Your task to perform on an android device: turn notification dots off Image 0: 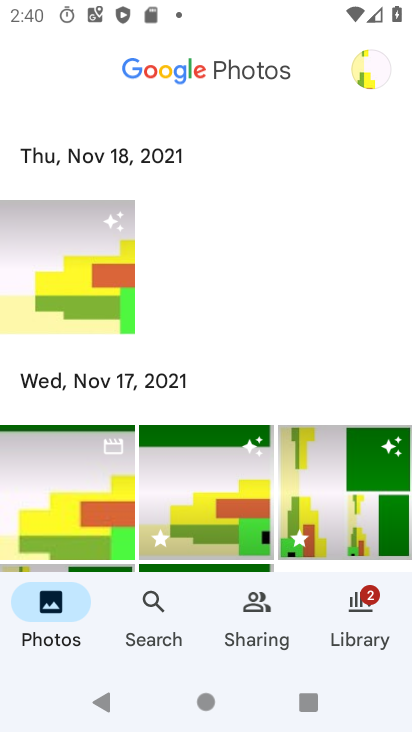
Step 0: press home button
Your task to perform on an android device: turn notification dots off Image 1: 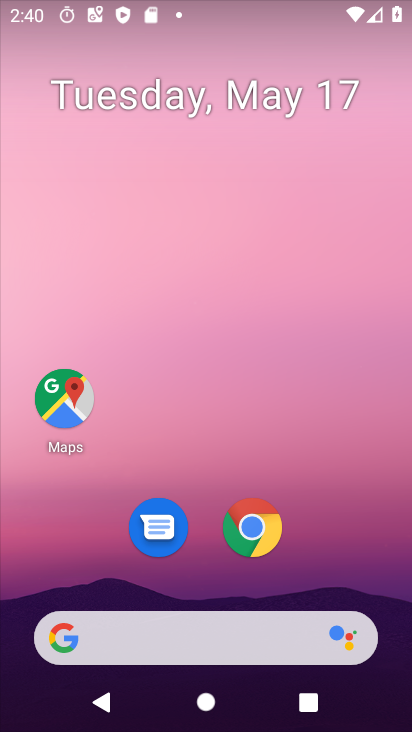
Step 1: drag from (256, 664) to (248, 171)
Your task to perform on an android device: turn notification dots off Image 2: 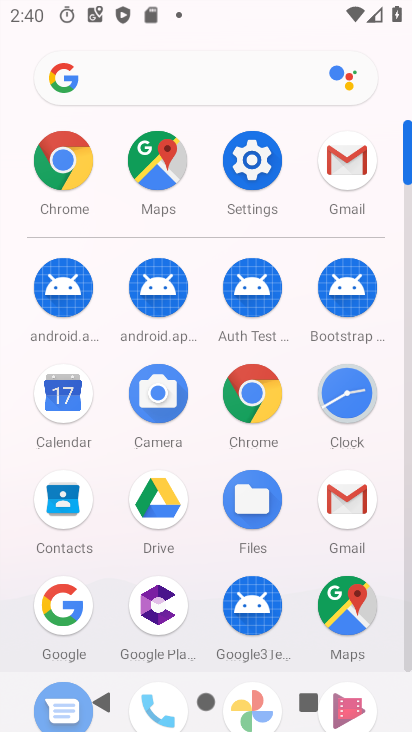
Step 2: click (259, 170)
Your task to perform on an android device: turn notification dots off Image 3: 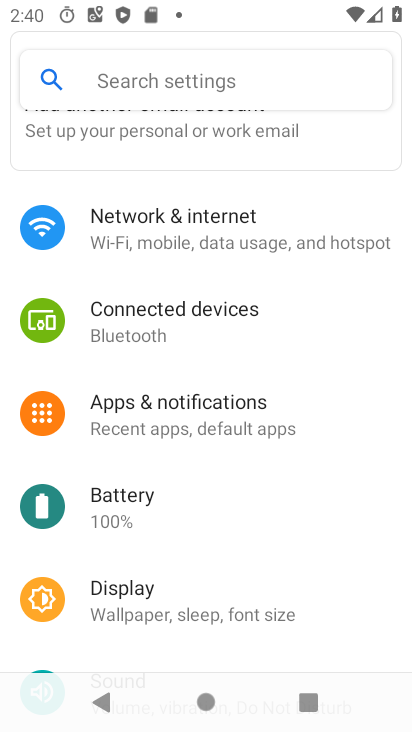
Step 3: click (149, 72)
Your task to perform on an android device: turn notification dots off Image 4: 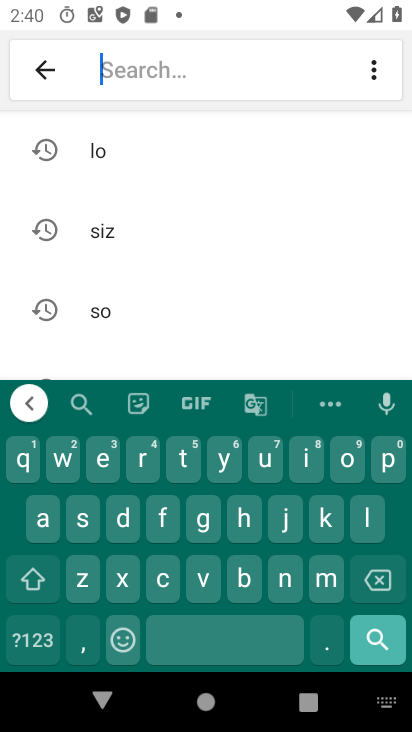
Step 4: click (124, 515)
Your task to perform on an android device: turn notification dots off Image 5: 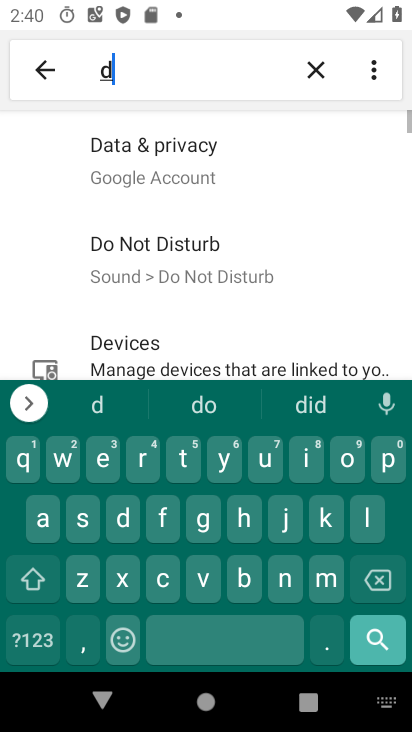
Step 5: click (339, 471)
Your task to perform on an android device: turn notification dots off Image 6: 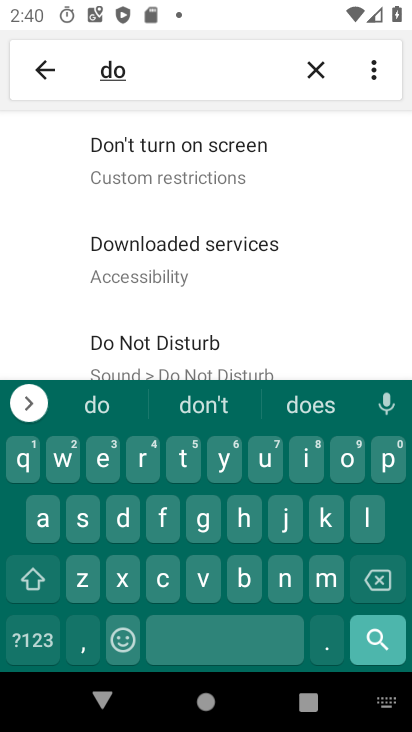
Step 6: click (185, 464)
Your task to perform on an android device: turn notification dots off Image 7: 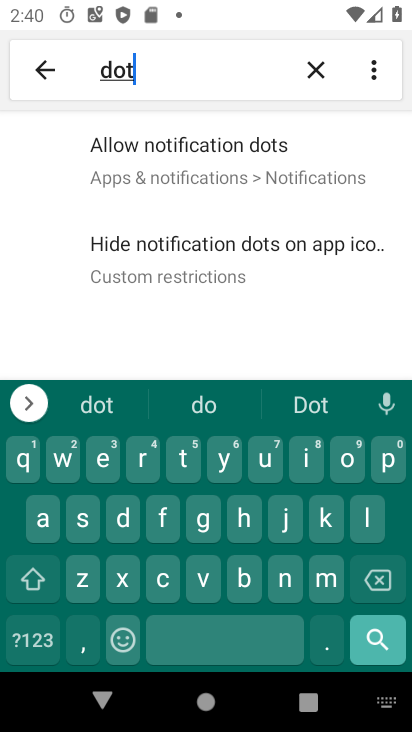
Step 7: click (140, 172)
Your task to perform on an android device: turn notification dots off Image 8: 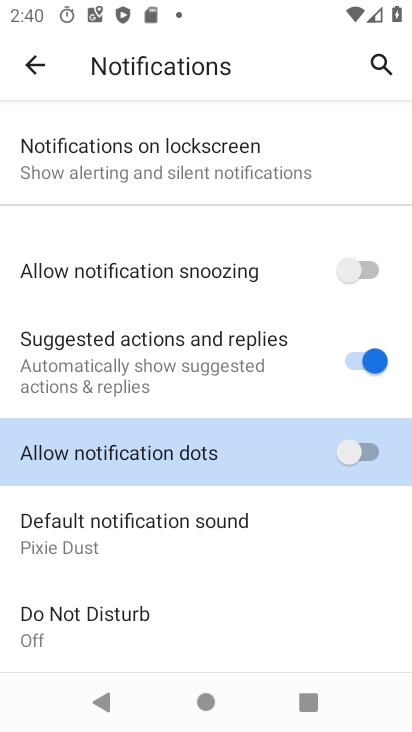
Step 8: click (274, 414)
Your task to perform on an android device: turn notification dots off Image 9: 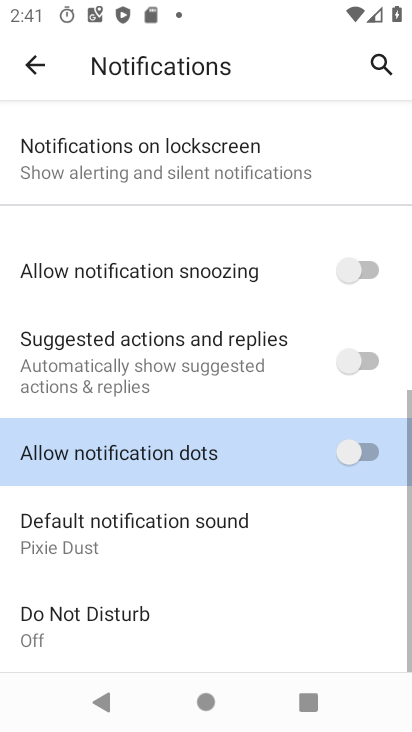
Step 9: click (274, 414)
Your task to perform on an android device: turn notification dots off Image 10: 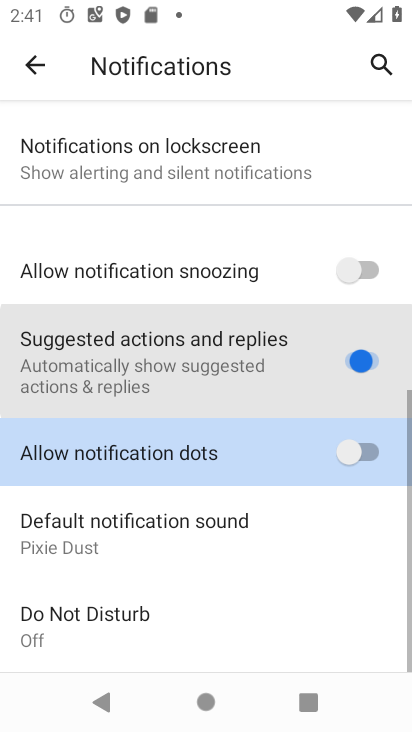
Step 10: click (307, 450)
Your task to perform on an android device: turn notification dots off Image 11: 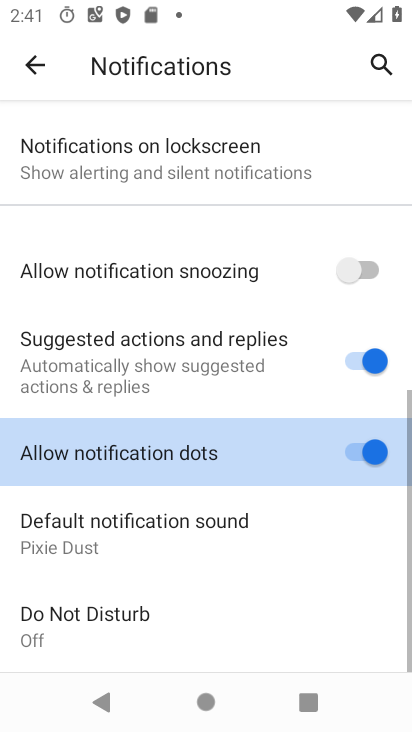
Step 11: click (363, 463)
Your task to perform on an android device: turn notification dots off Image 12: 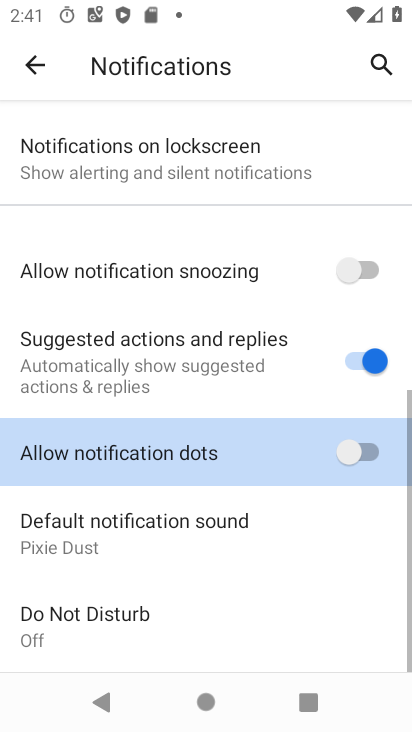
Step 12: task complete